Your task to perform on an android device: check storage Image 0: 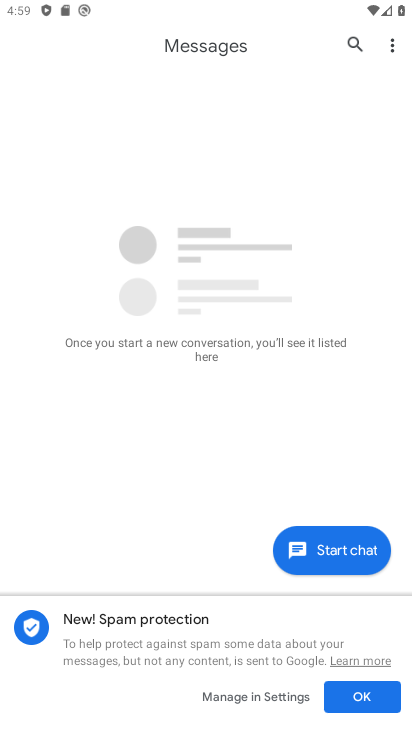
Step 0: press home button
Your task to perform on an android device: check storage Image 1: 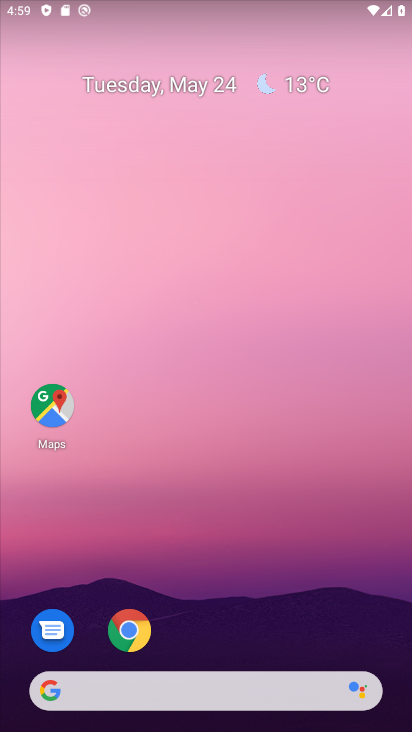
Step 1: drag from (197, 643) to (275, 0)
Your task to perform on an android device: check storage Image 2: 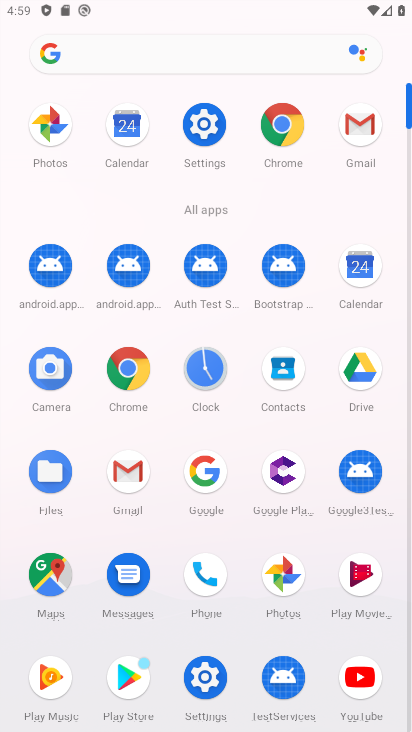
Step 2: click (203, 129)
Your task to perform on an android device: check storage Image 3: 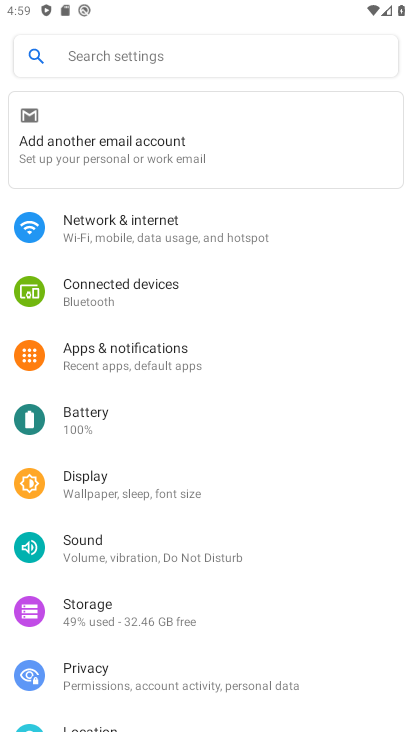
Step 3: click (107, 626)
Your task to perform on an android device: check storage Image 4: 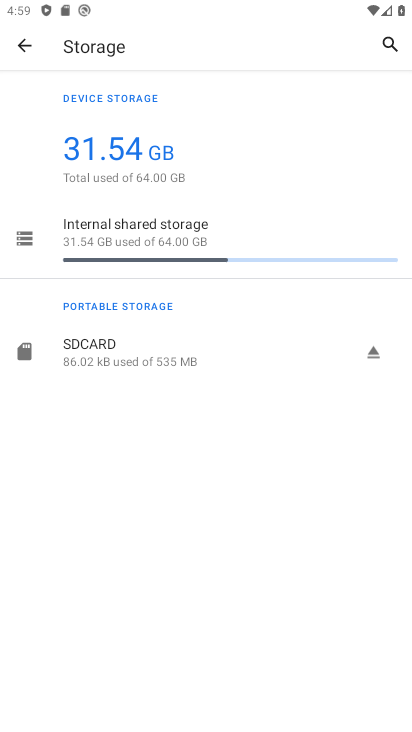
Step 4: task complete